Your task to perform on an android device: move an email to a new category in the gmail app Image 0: 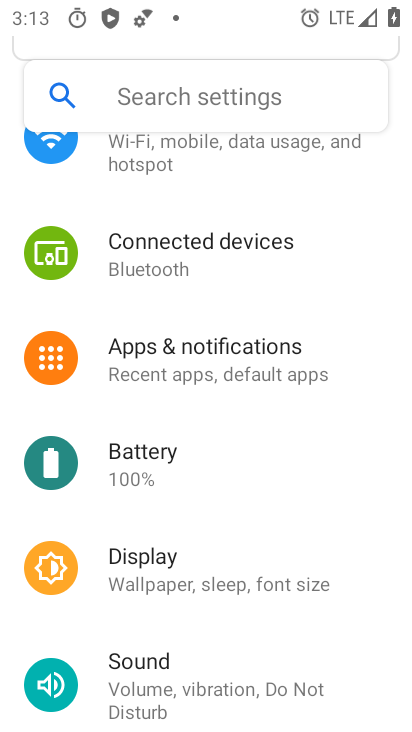
Step 0: press home button
Your task to perform on an android device: move an email to a new category in the gmail app Image 1: 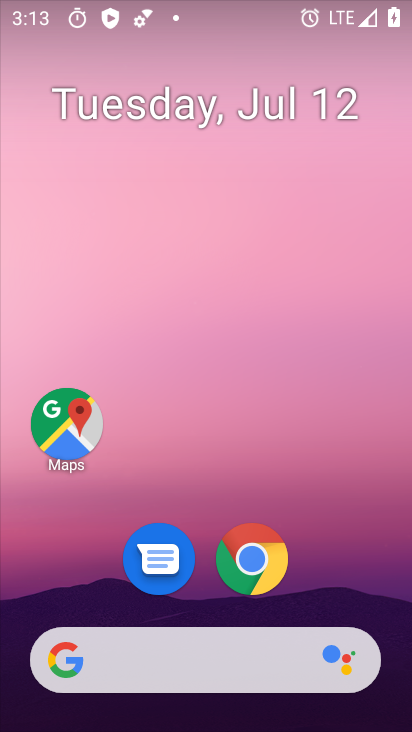
Step 1: drag from (353, 594) to (361, 192)
Your task to perform on an android device: move an email to a new category in the gmail app Image 2: 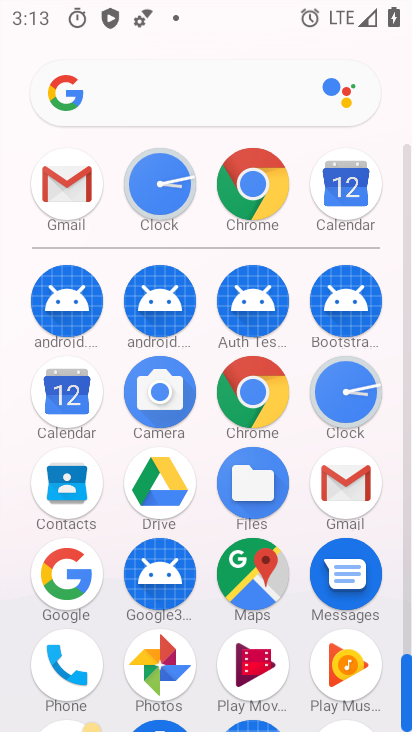
Step 2: click (343, 490)
Your task to perform on an android device: move an email to a new category in the gmail app Image 3: 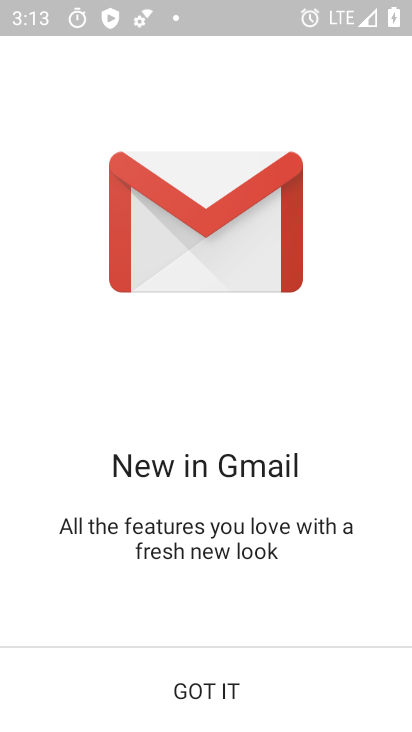
Step 3: click (317, 697)
Your task to perform on an android device: move an email to a new category in the gmail app Image 4: 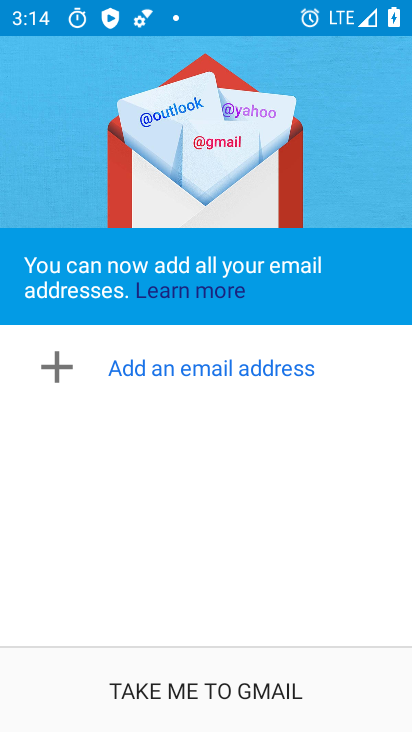
Step 4: click (294, 697)
Your task to perform on an android device: move an email to a new category in the gmail app Image 5: 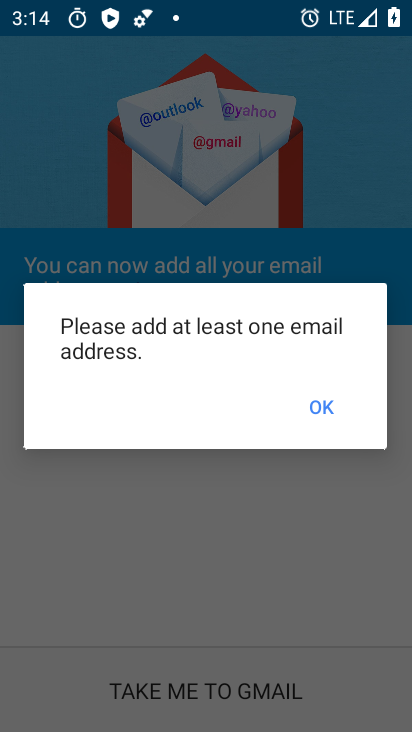
Step 5: task complete